Your task to perform on an android device: turn on location history Image 0: 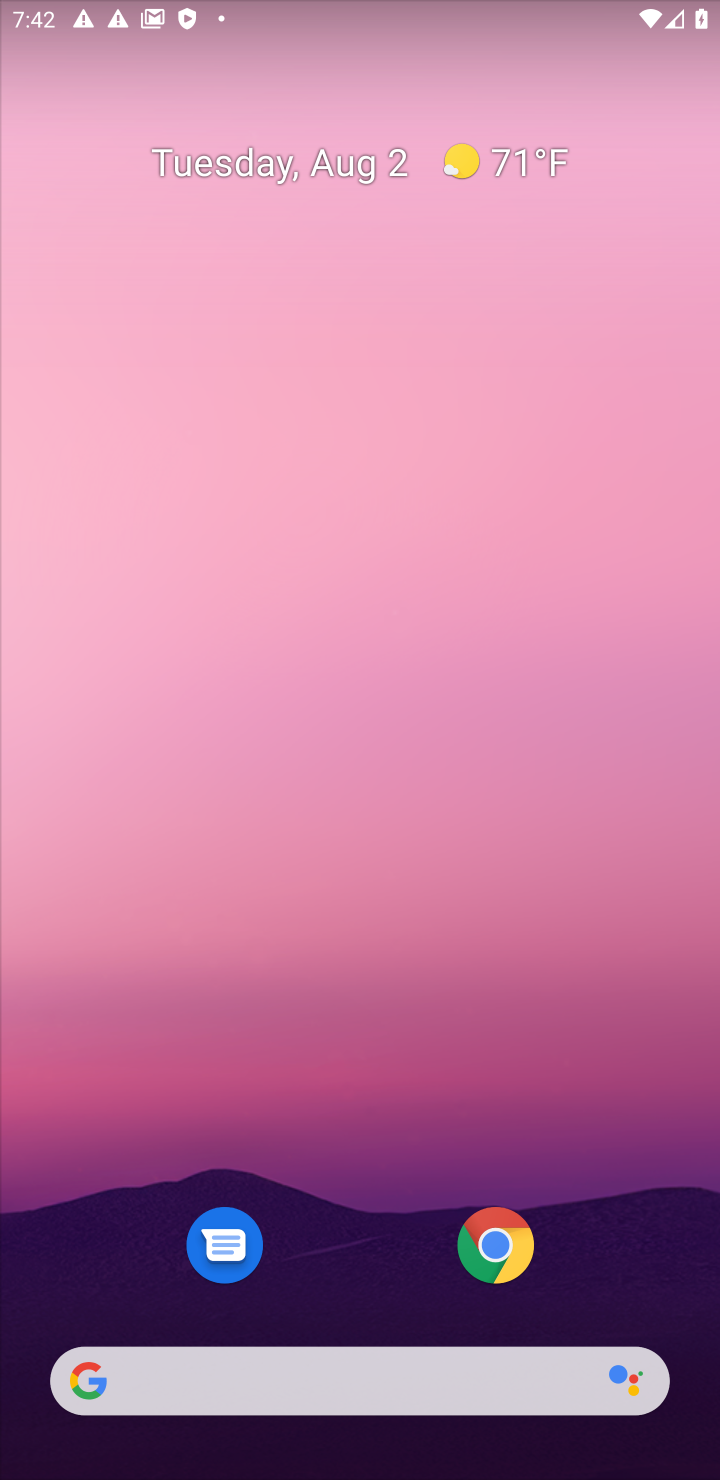
Step 0: drag from (339, 1155) to (202, 60)
Your task to perform on an android device: turn on location history Image 1: 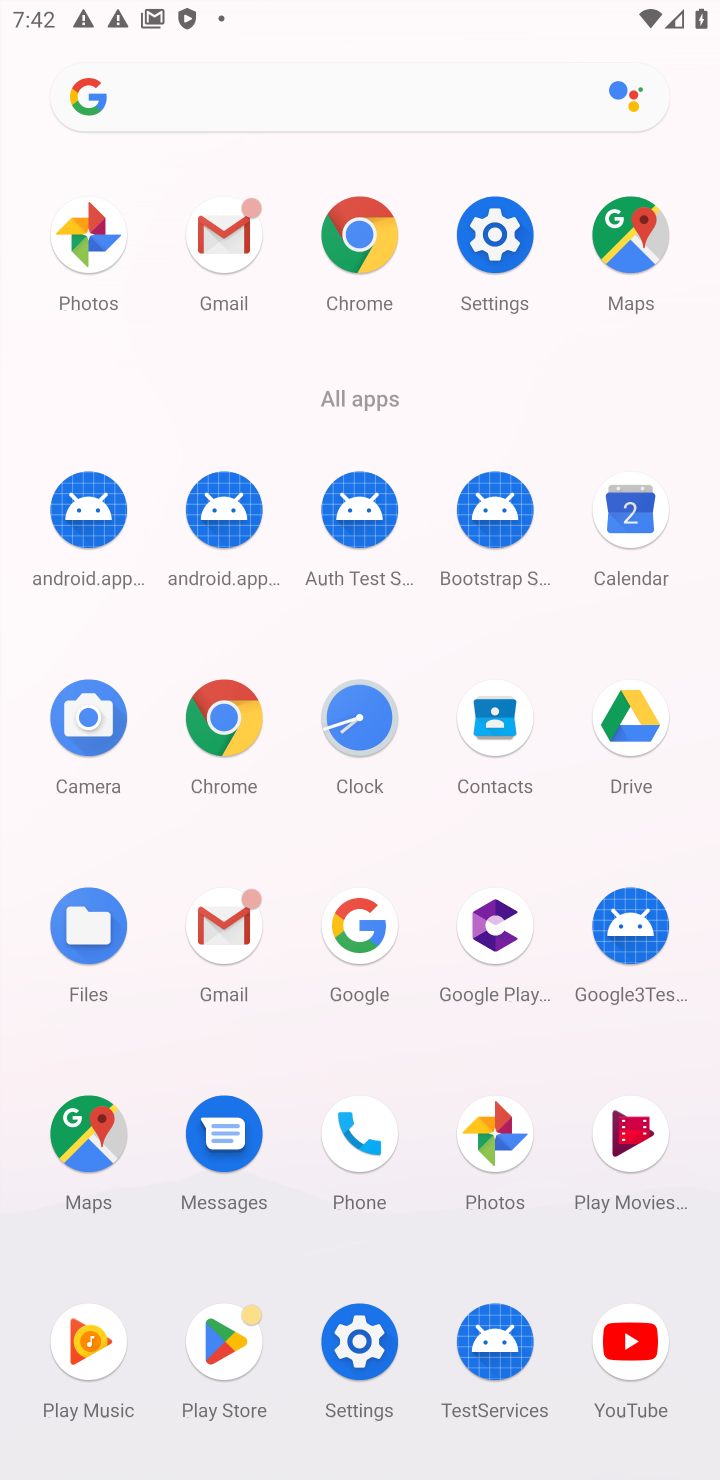
Step 1: click (485, 231)
Your task to perform on an android device: turn on location history Image 2: 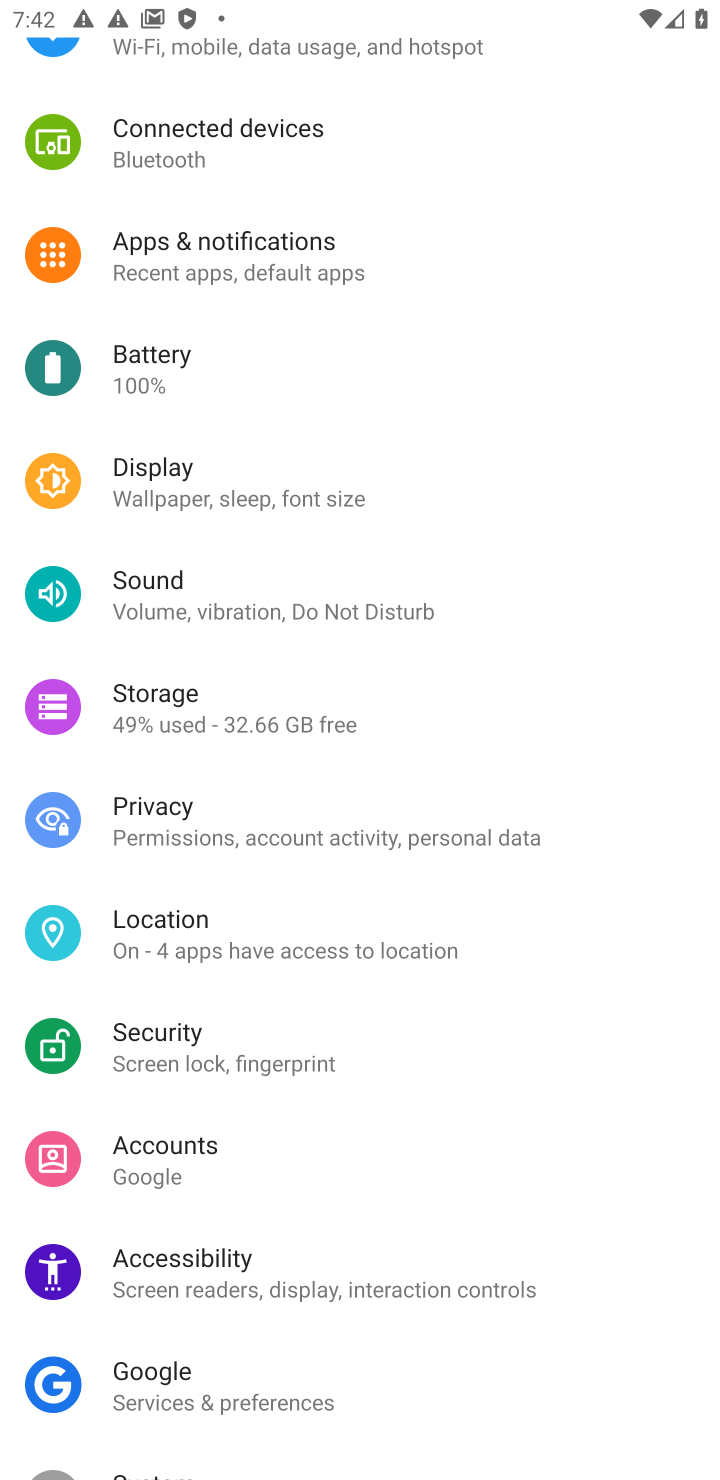
Step 2: click (153, 924)
Your task to perform on an android device: turn on location history Image 3: 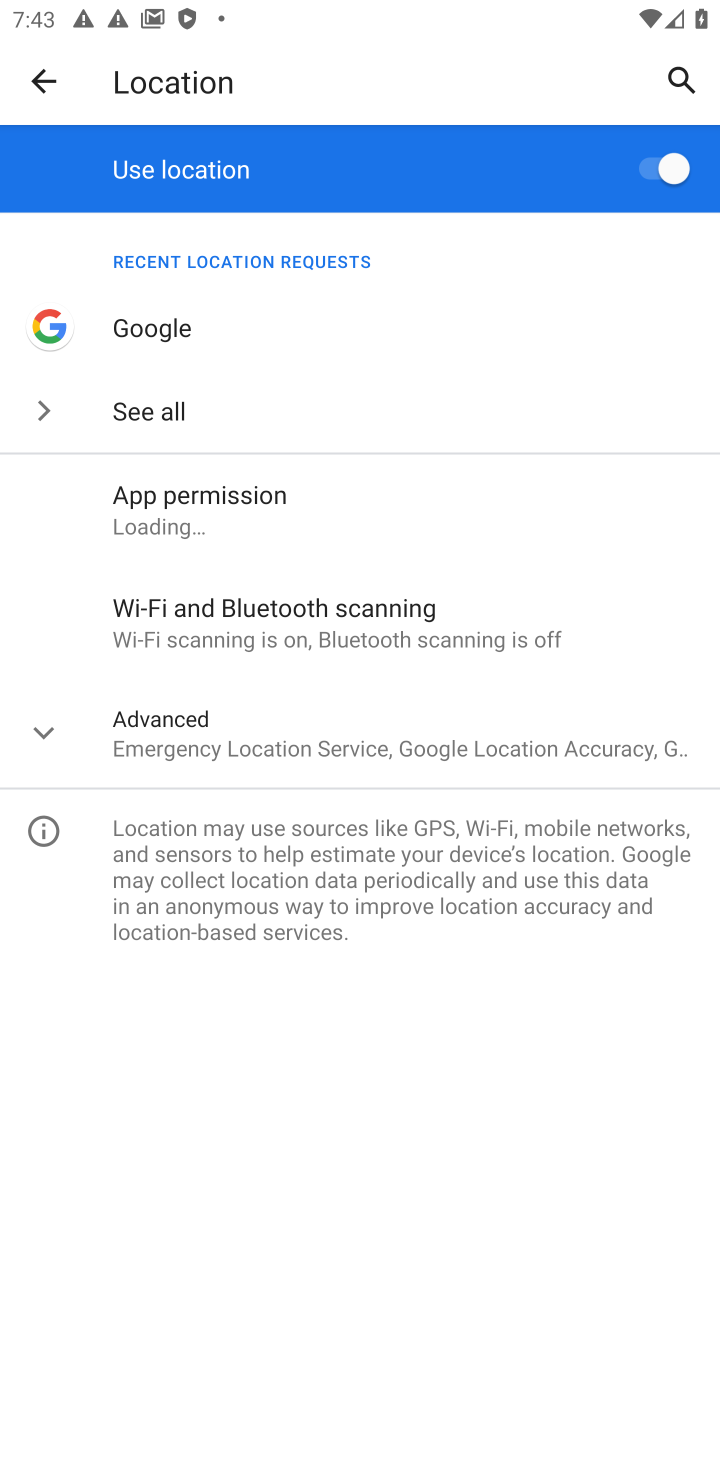
Step 3: task complete